Your task to perform on an android device: open the mobile data screen to see how much data has been used Image 0: 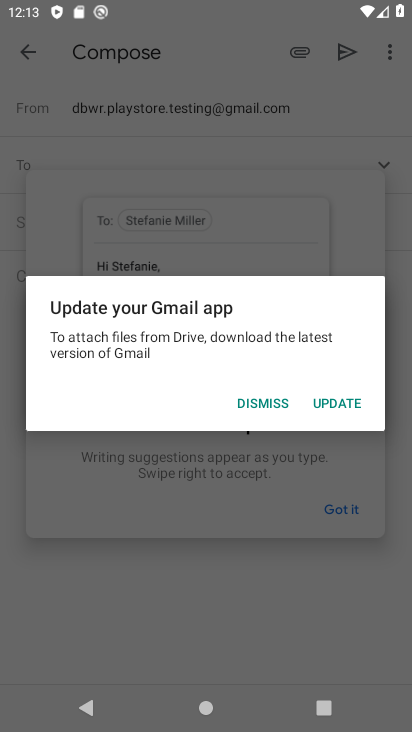
Step 0: press home button
Your task to perform on an android device: open the mobile data screen to see how much data has been used Image 1: 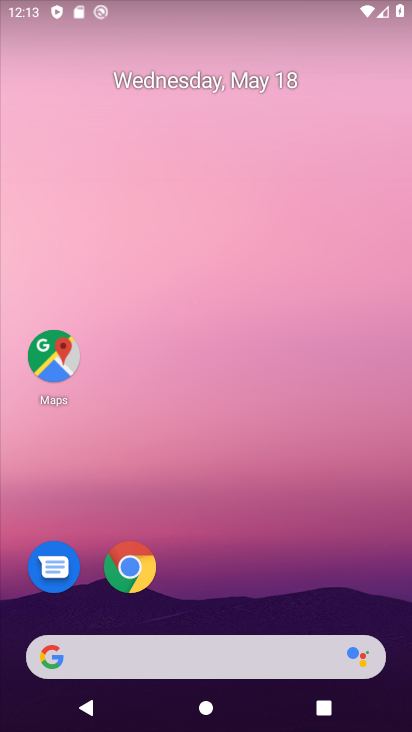
Step 1: drag from (352, 519) to (351, 93)
Your task to perform on an android device: open the mobile data screen to see how much data has been used Image 2: 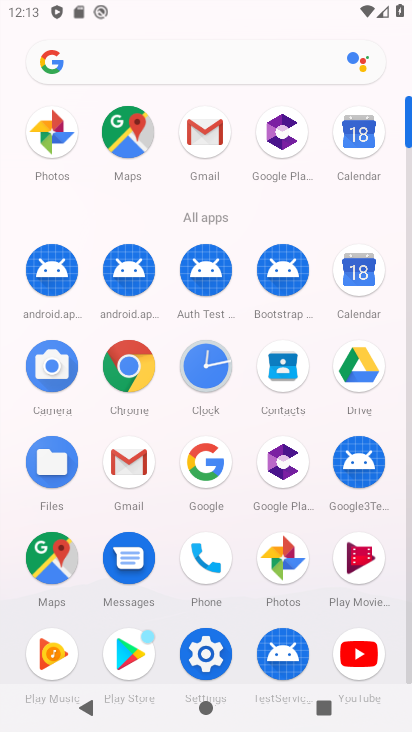
Step 2: click (227, 656)
Your task to perform on an android device: open the mobile data screen to see how much data has been used Image 3: 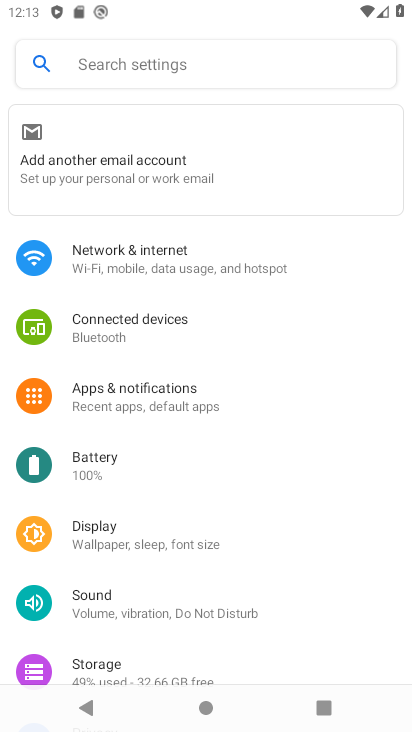
Step 3: click (226, 260)
Your task to perform on an android device: open the mobile data screen to see how much data has been used Image 4: 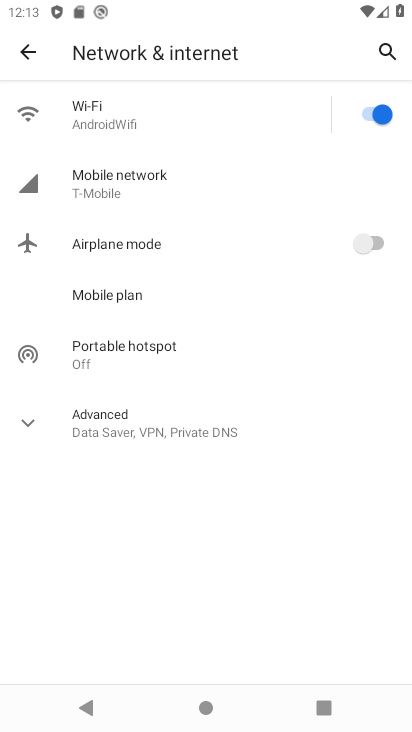
Step 4: click (174, 185)
Your task to perform on an android device: open the mobile data screen to see how much data has been used Image 5: 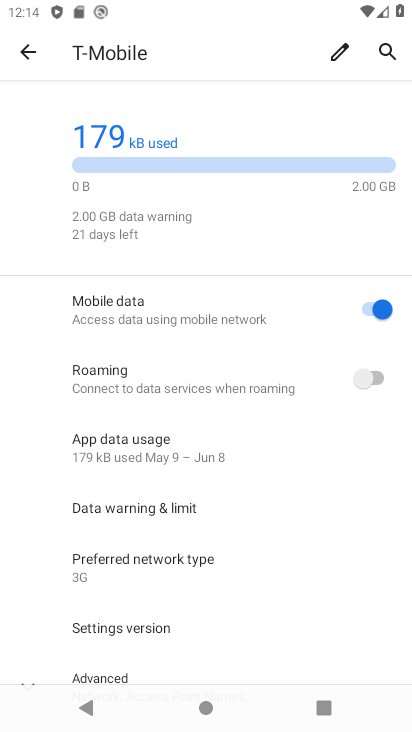
Step 5: task complete